Your task to perform on an android device: open chrome and create a bookmark for the current page Image 0: 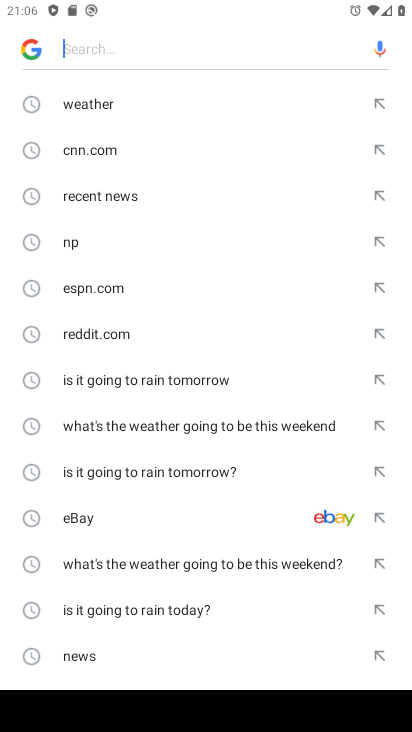
Step 0: press home button
Your task to perform on an android device: open chrome and create a bookmark for the current page Image 1: 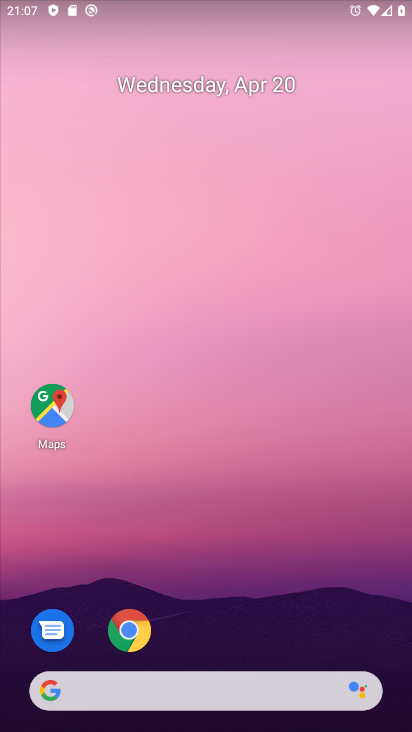
Step 1: click (126, 628)
Your task to perform on an android device: open chrome and create a bookmark for the current page Image 2: 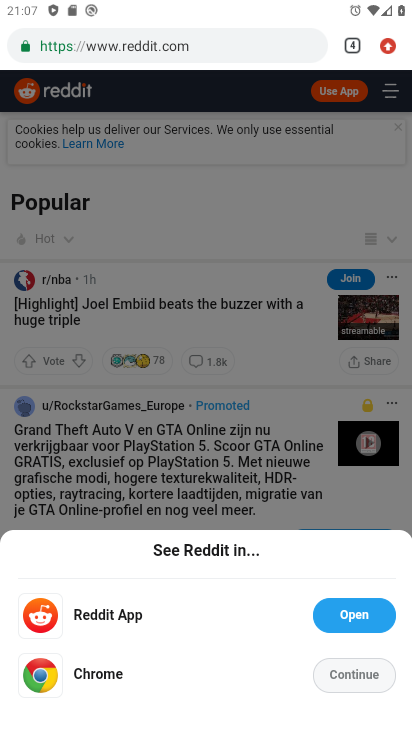
Step 2: click (391, 46)
Your task to perform on an android device: open chrome and create a bookmark for the current page Image 3: 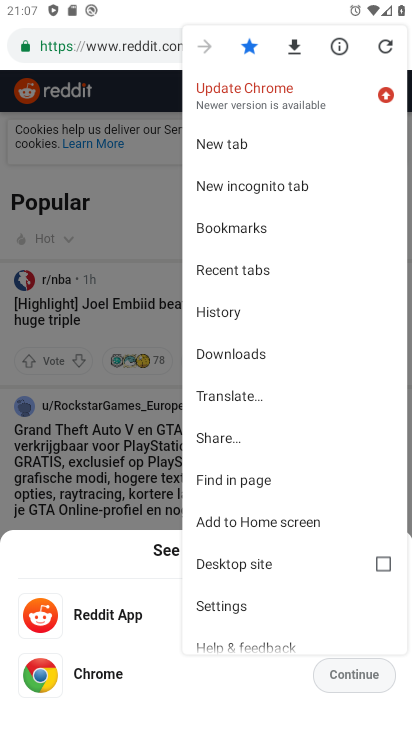
Step 3: task complete